Your task to perform on an android device: turn on notifications settings in the gmail app Image 0: 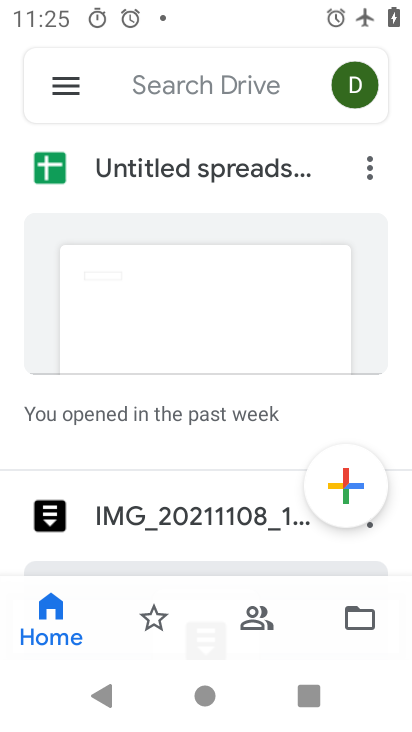
Step 0: press home button
Your task to perform on an android device: turn on notifications settings in the gmail app Image 1: 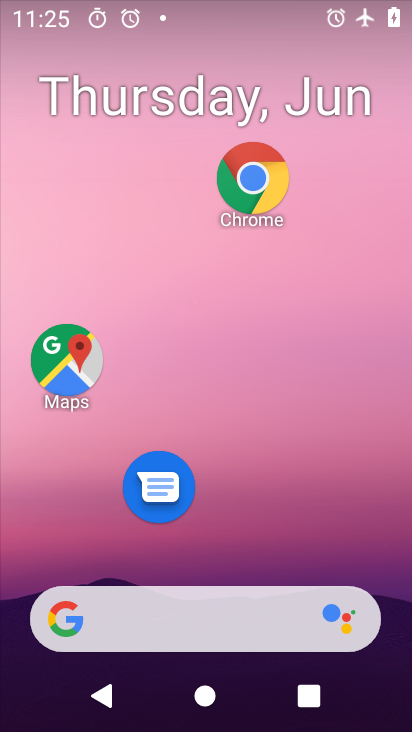
Step 1: drag from (249, 718) to (239, 77)
Your task to perform on an android device: turn on notifications settings in the gmail app Image 2: 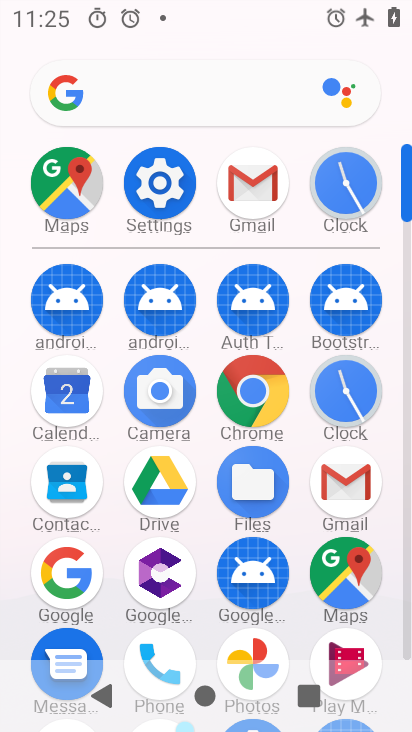
Step 2: drag from (209, 609) to (185, 238)
Your task to perform on an android device: turn on notifications settings in the gmail app Image 3: 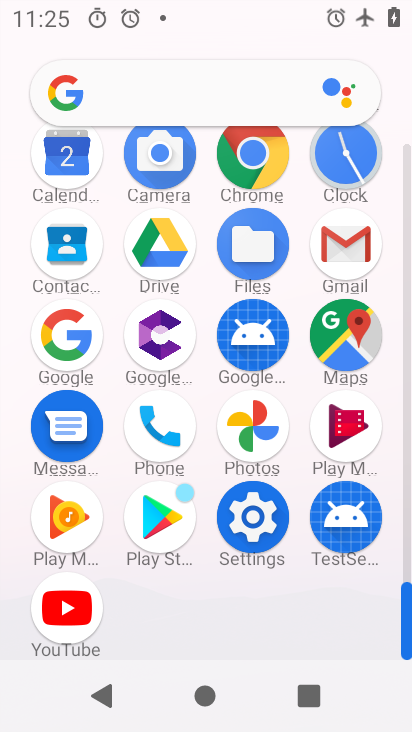
Step 3: click (347, 240)
Your task to perform on an android device: turn on notifications settings in the gmail app Image 4: 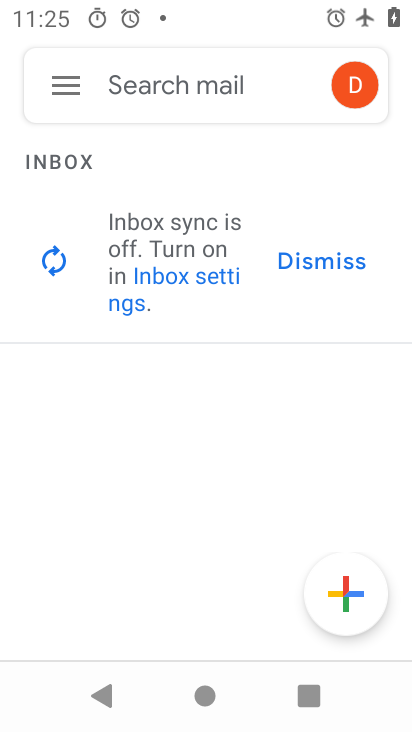
Step 4: click (65, 79)
Your task to perform on an android device: turn on notifications settings in the gmail app Image 5: 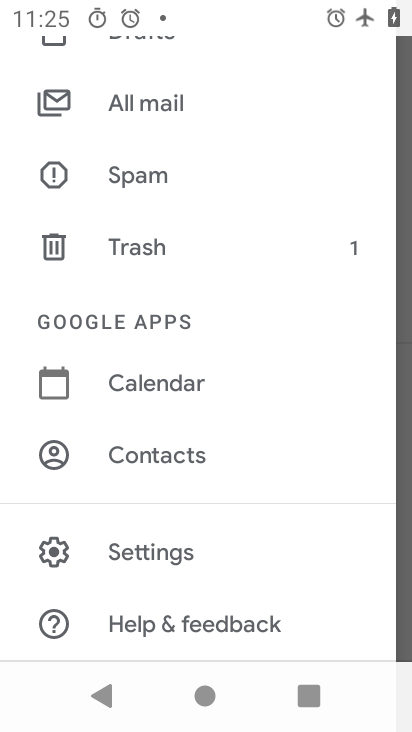
Step 5: click (140, 549)
Your task to perform on an android device: turn on notifications settings in the gmail app Image 6: 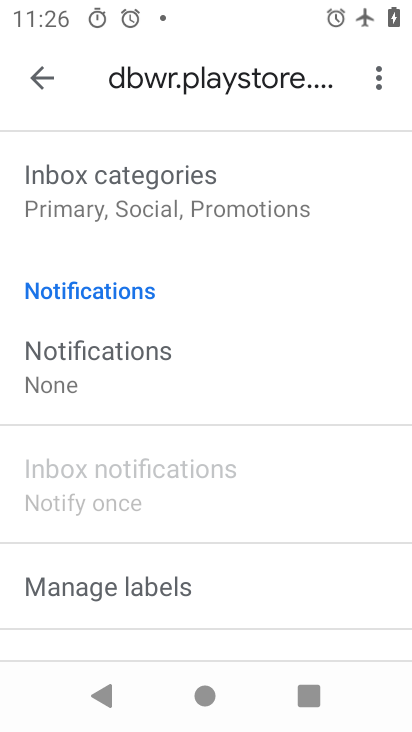
Step 6: click (72, 377)
Your task to perform on an android device: turn on notifications settings in the gmail app Image 7: 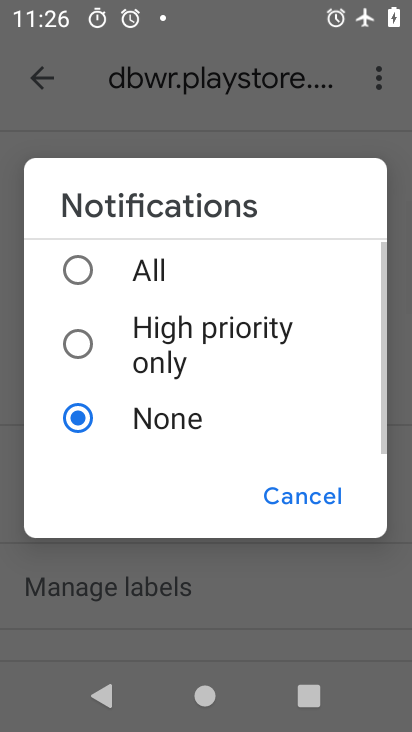
Step 7: click (76, 271)
Your task to perform on an android device: turn on notifications settings in the gmail app Image 8: 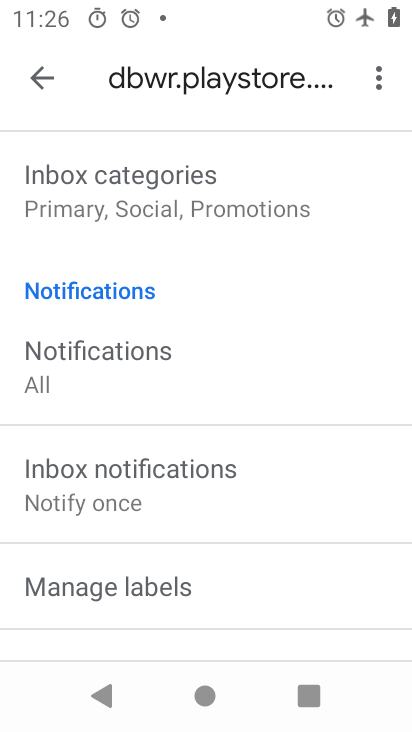
Step 8: task complete